Your task to perform on an android device: turn on showing notifications on the lock screen Image 0: 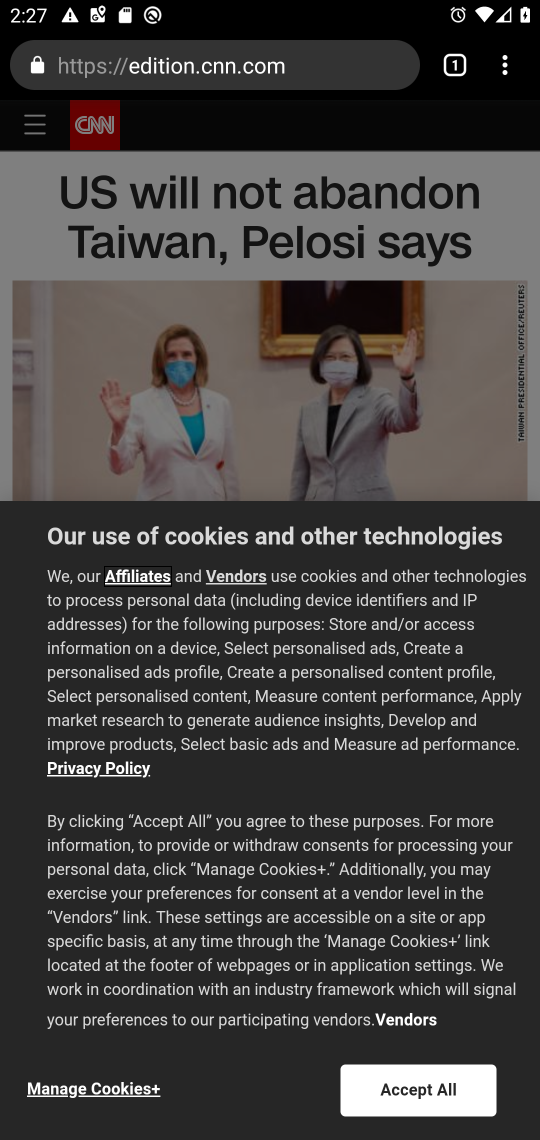
Step 0: press home button
Your task to perform on an android device: turn on showing notifications on the lock screen Image 1: 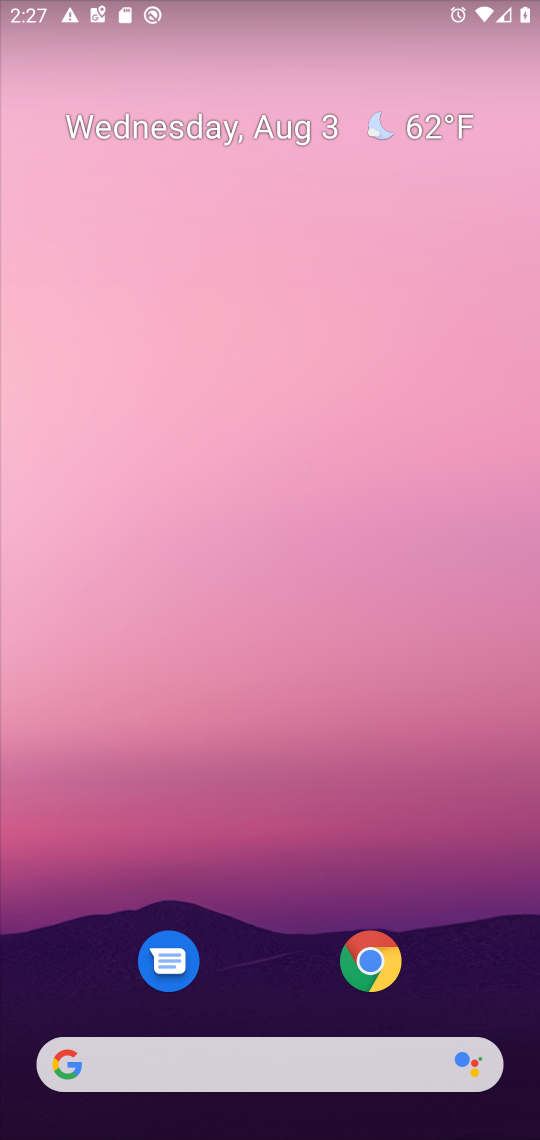
Step 1: drag from (292, 965) to (270, 25)
Your task to perform on an android device: turn on showing notifications on the lock screen Image 2: 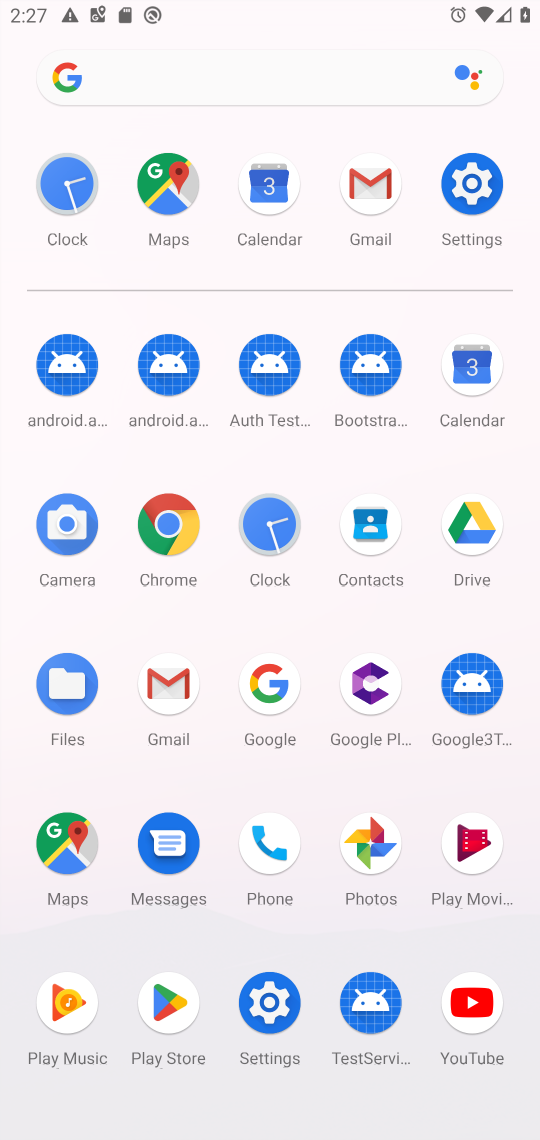
Step 2: click (472, 181)
Your task to perform on an android device: turn on showing notifications on the lock screen Image 3: 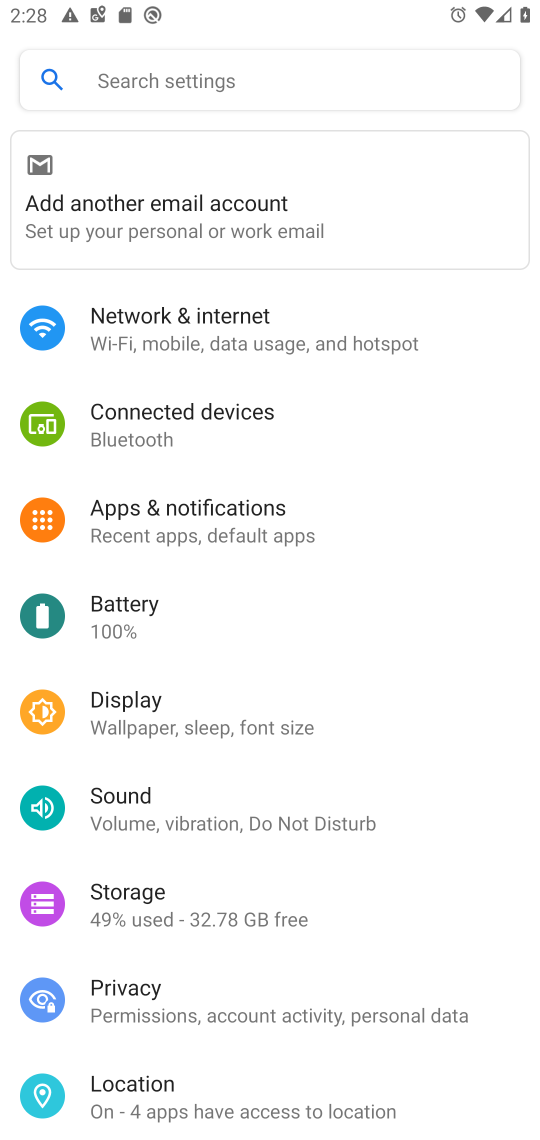
Step 3: click (177, 514)
Your task to perform on an android device: turn on showing notifications on the lock screen Image 4: 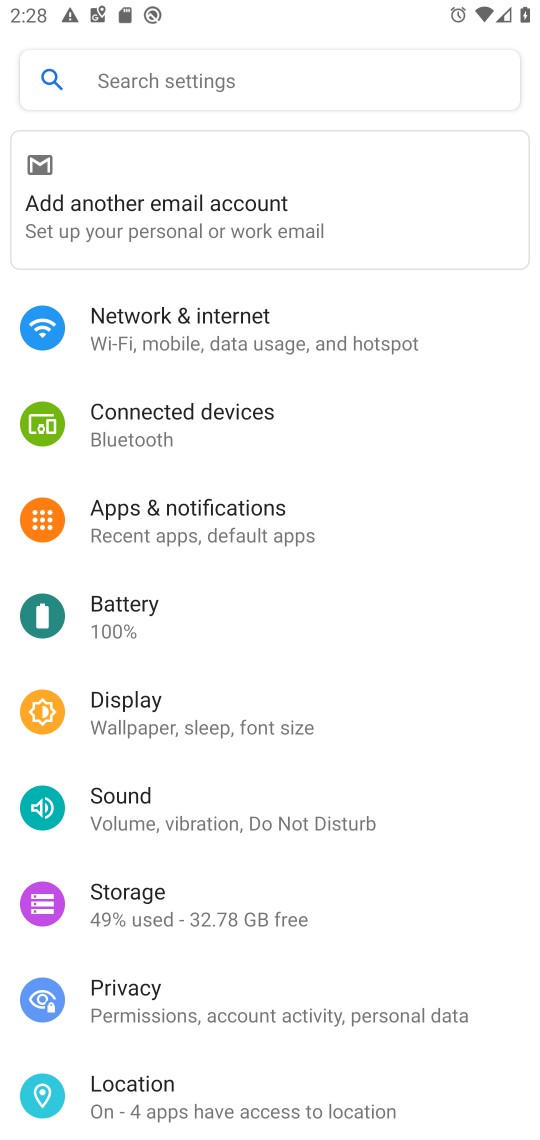
Step 4: click (197, 526)
Your task to perform on an android device: turn on showing notifications on the lock screen Image 5: 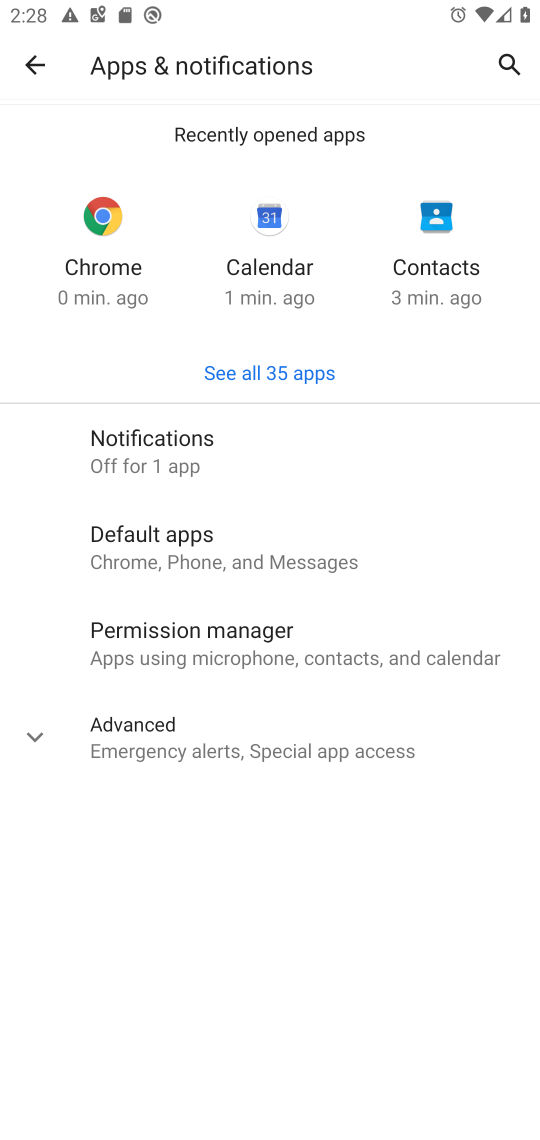
Step 5: click (170, 449)
Your task to perform on an android device: turn on showing notifications on the lock screen Image 6: 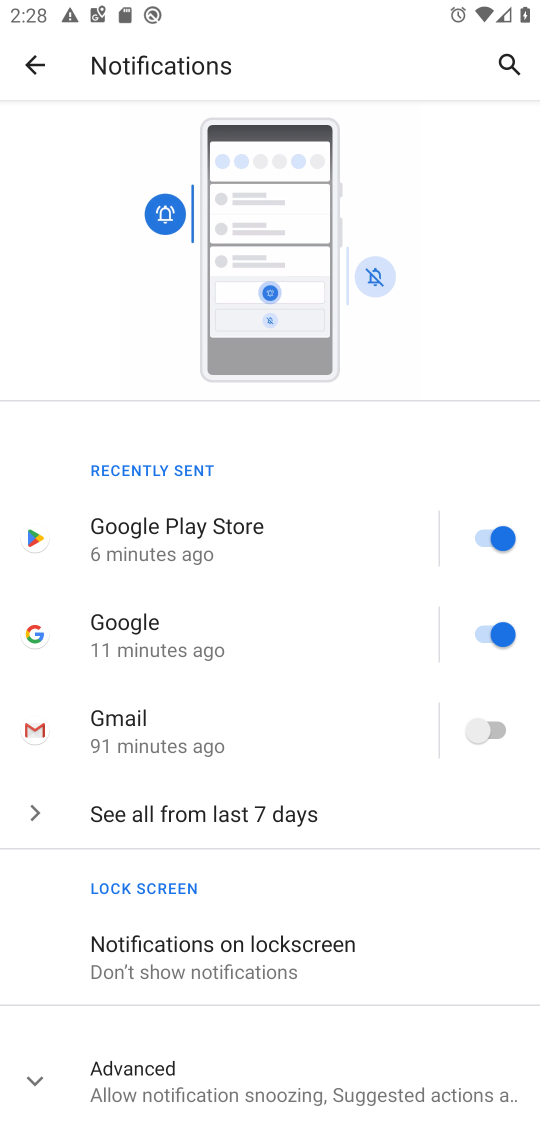
Step 6: click (188, 957)
Your task to perform on an android device: turn on showing notifications on the lock screen Image 7: 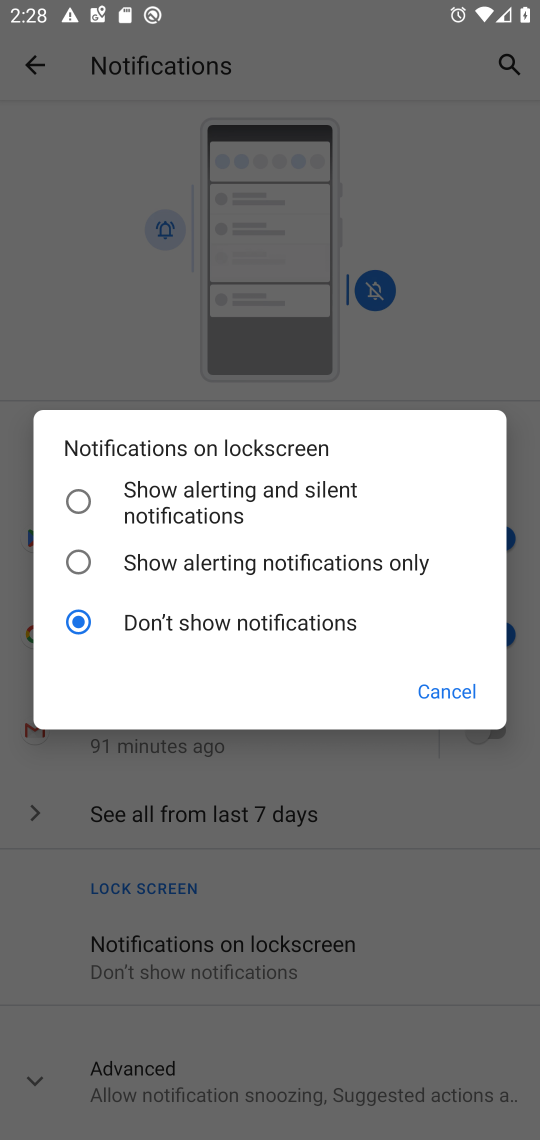
Step 7: click (83, 497)
Your task to perform on an android device: turn on showing notifications on the lock screen Image 8: 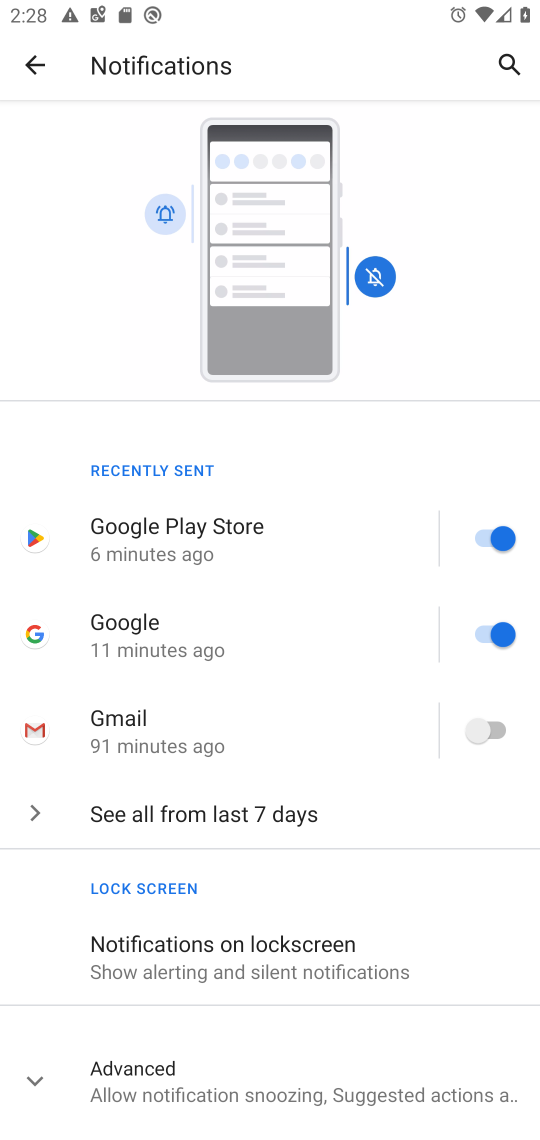
Step 8: task complete